Your task to perform on an android device: Add jbl charge 4 to the cart on newegg.com, then select checkout. Image 0: 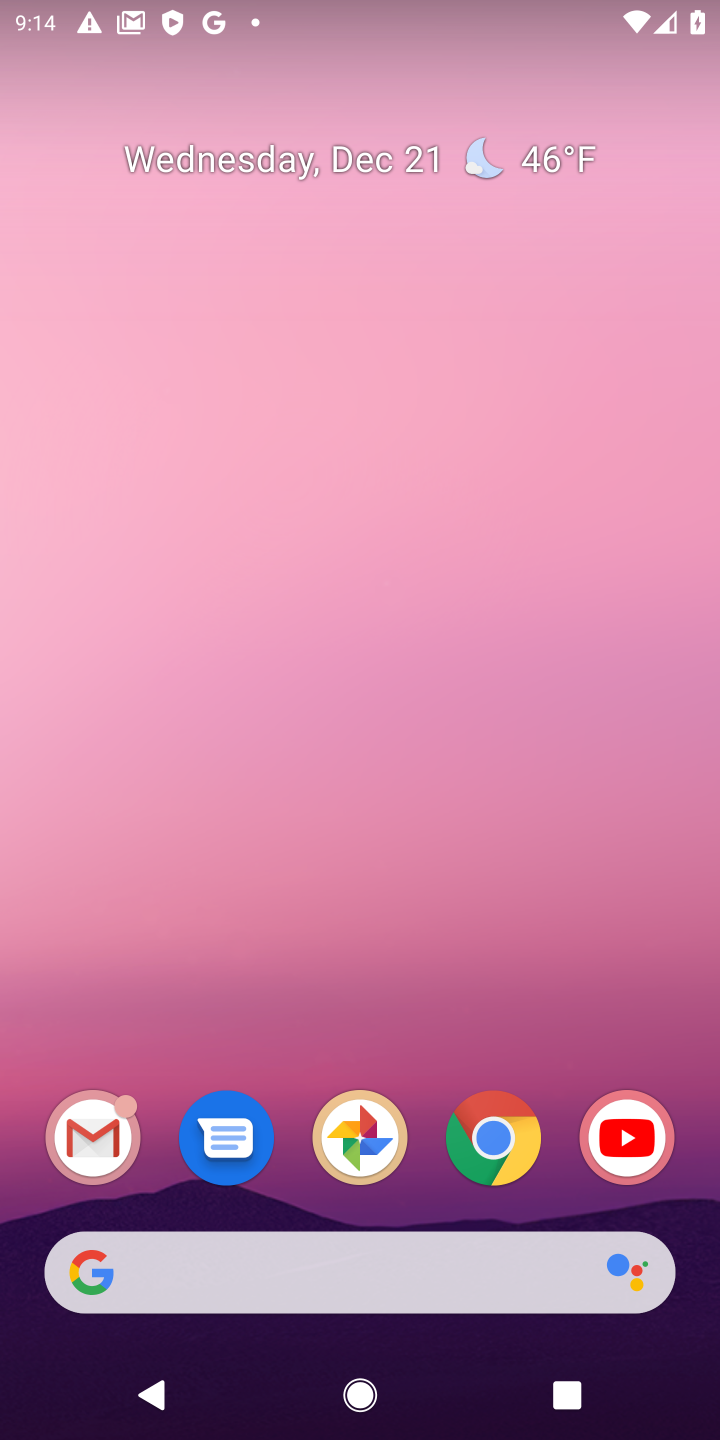
Step 0: click (483, 1142)
Your task to perform on an android device: Add jbl charge 4 to the cart on newegg.com, then select checkout. Image 1: 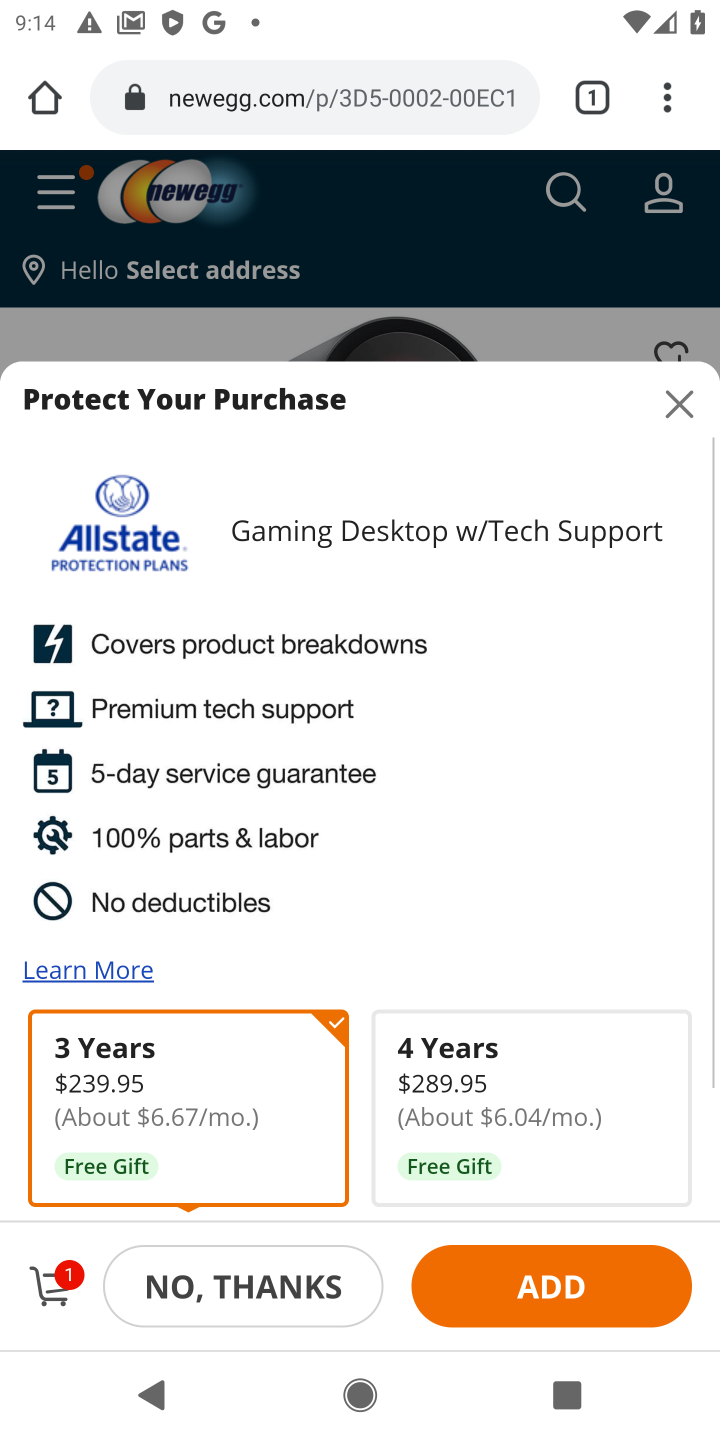
Step 1: click (688, 404)
Your task to perform on an android device: Add jbl charge 4 to the cart on newegg.com, then select checkout. Image 2: 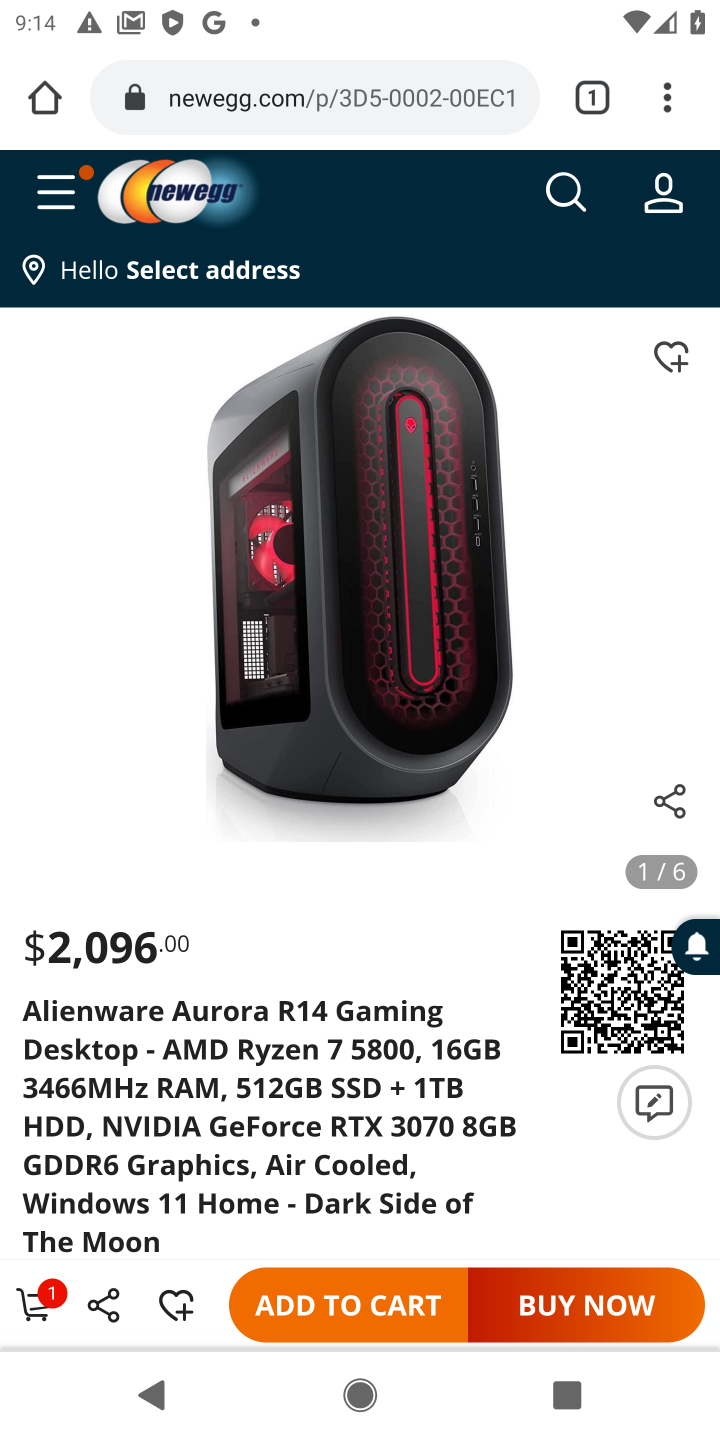
Step 2: click (575, 208)
Your task to perform on an android device: Add jbl charge 4 to the cart on newegg.com, then select checkout. Image 3: 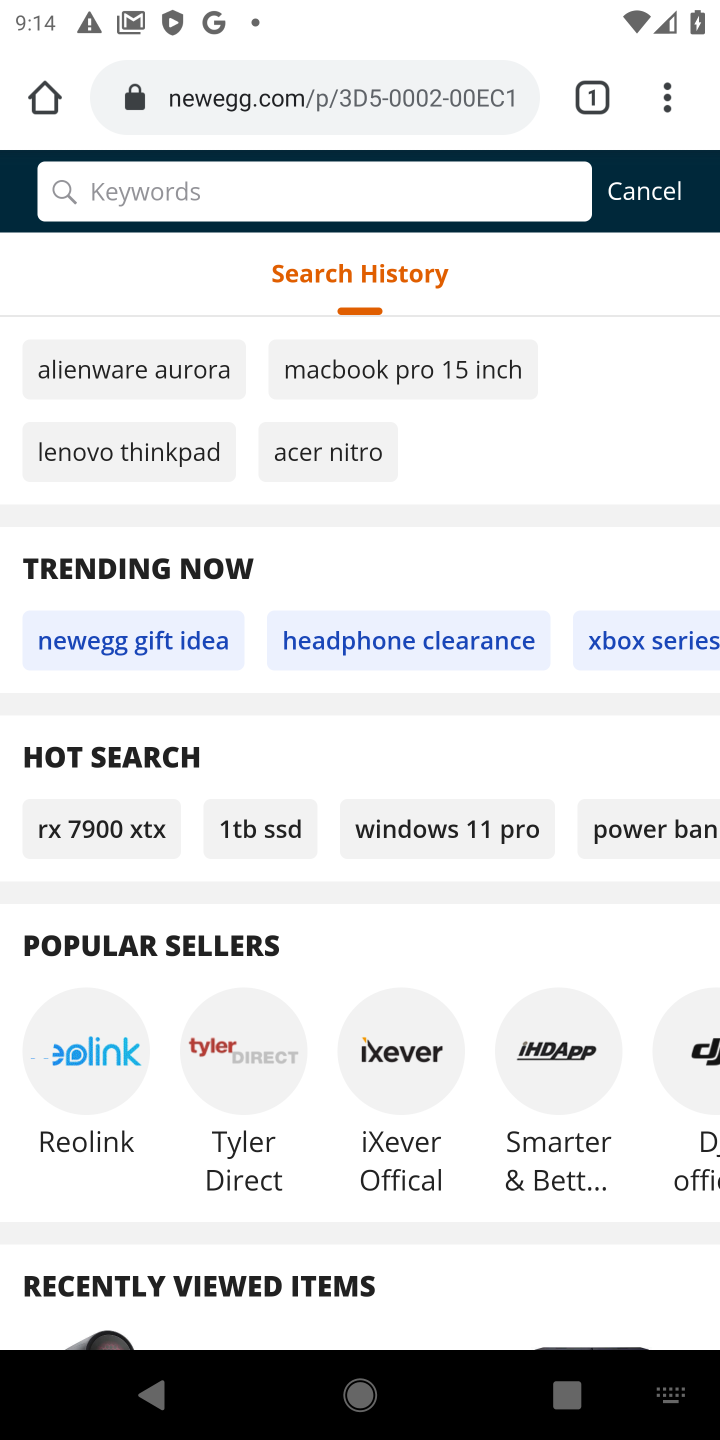
Step 3: type " jbl charge 4"
Your task to perform on an android device: Add jbl charge 4 to the cart on newegg.com, then select checkout. Image 4: 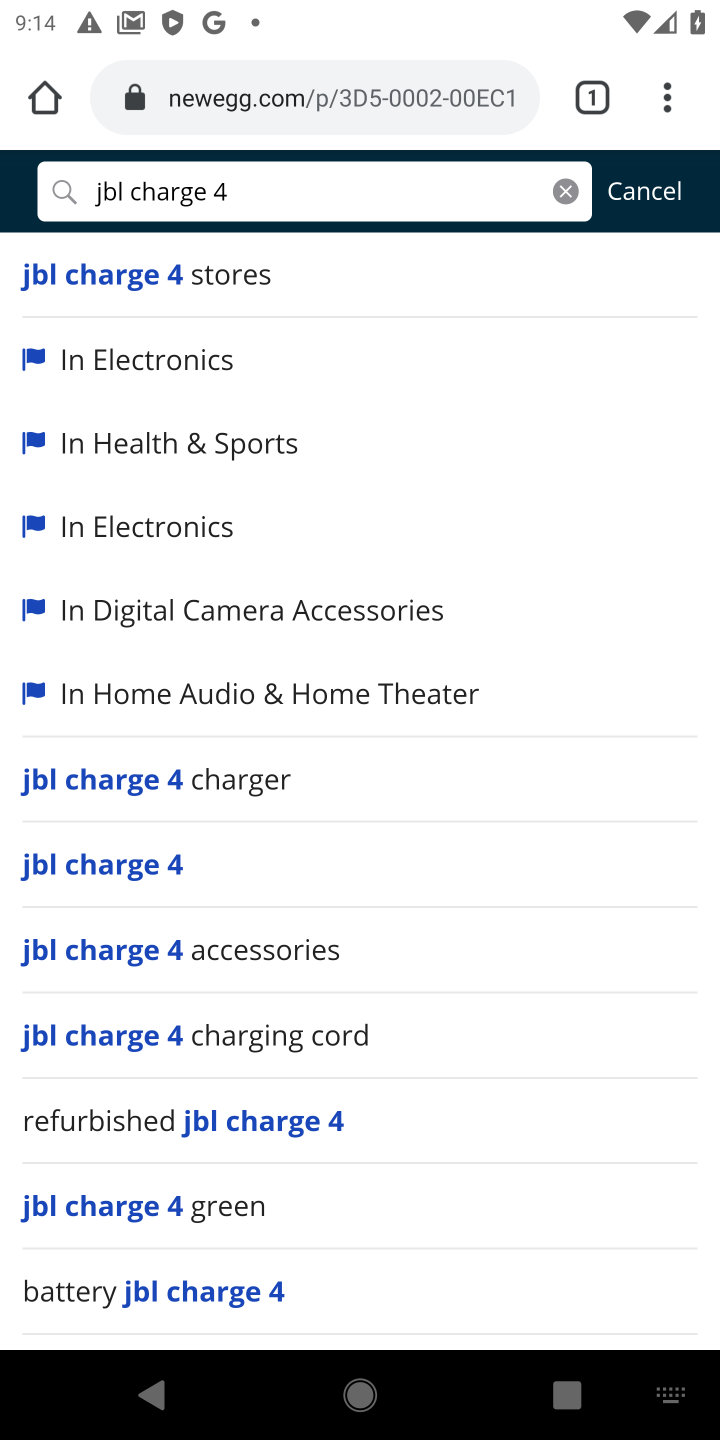
Step 4: click (95, 864)
Your task to perform on an android device: Add jbl charge 4 to the cart on newegg.com, then select checkout. Image 5: 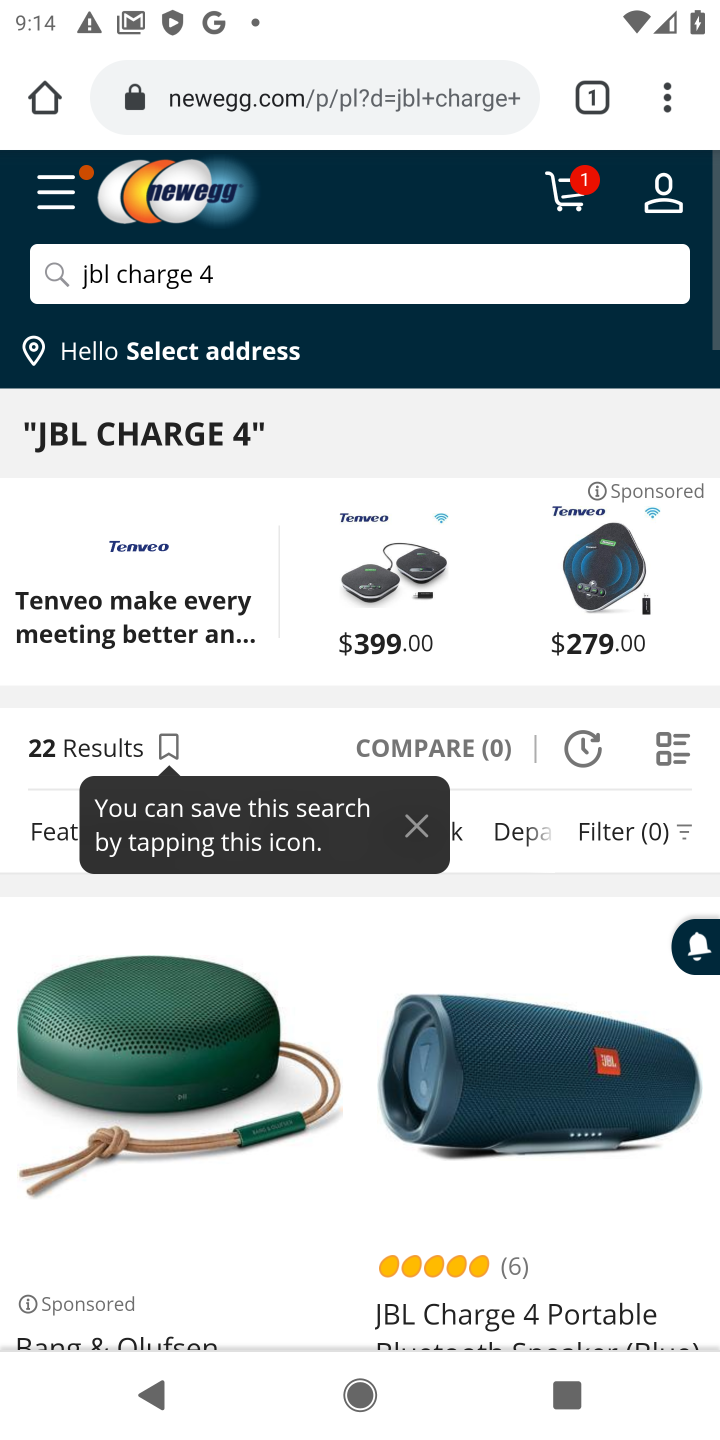
Step 5: drag from (205, 1117) to (217, 609)
Your task to perform on an android device: Add jbl charge 4 to the cart on newegg.com, then select checkout. Image 6: 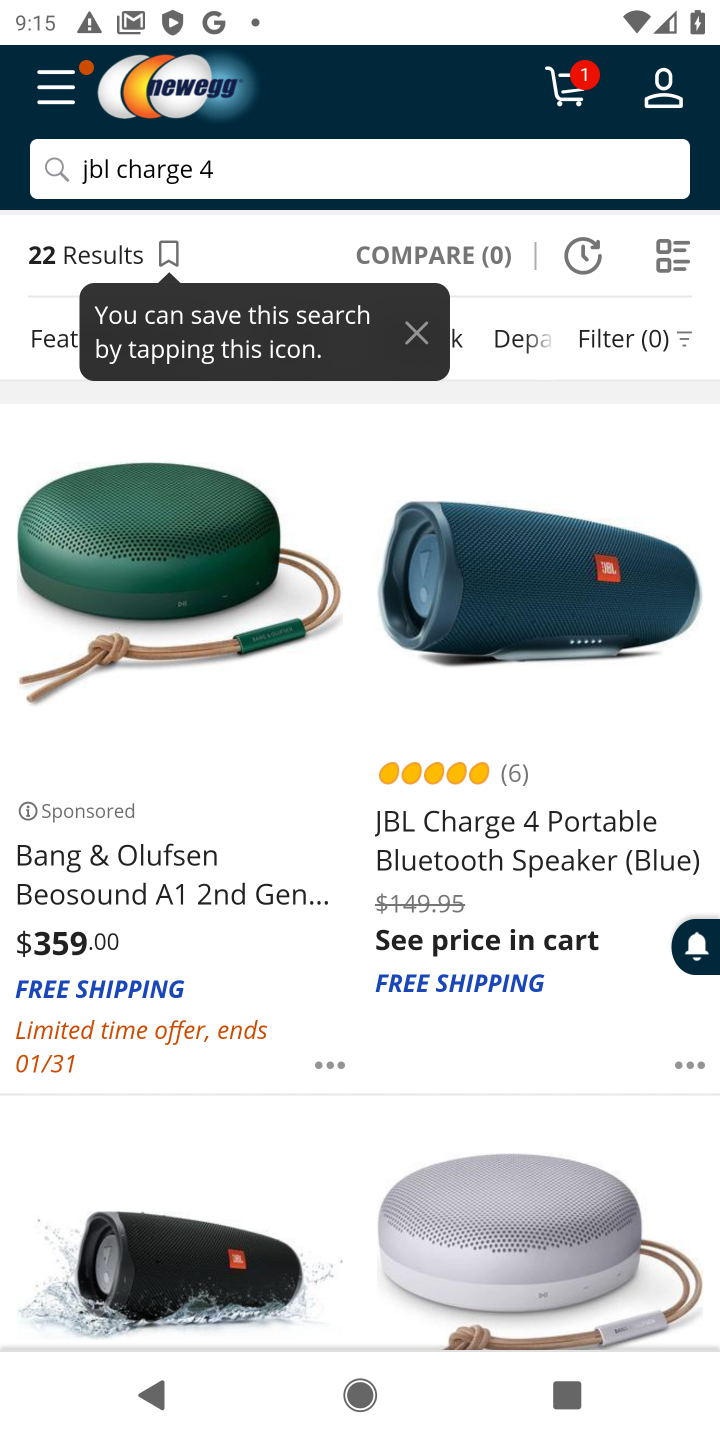
Step 6: click (506, 852)
Your task to perform on an android device: Add jbl charge 4 to the cart on newegg.com, then select checkout. Image 7: 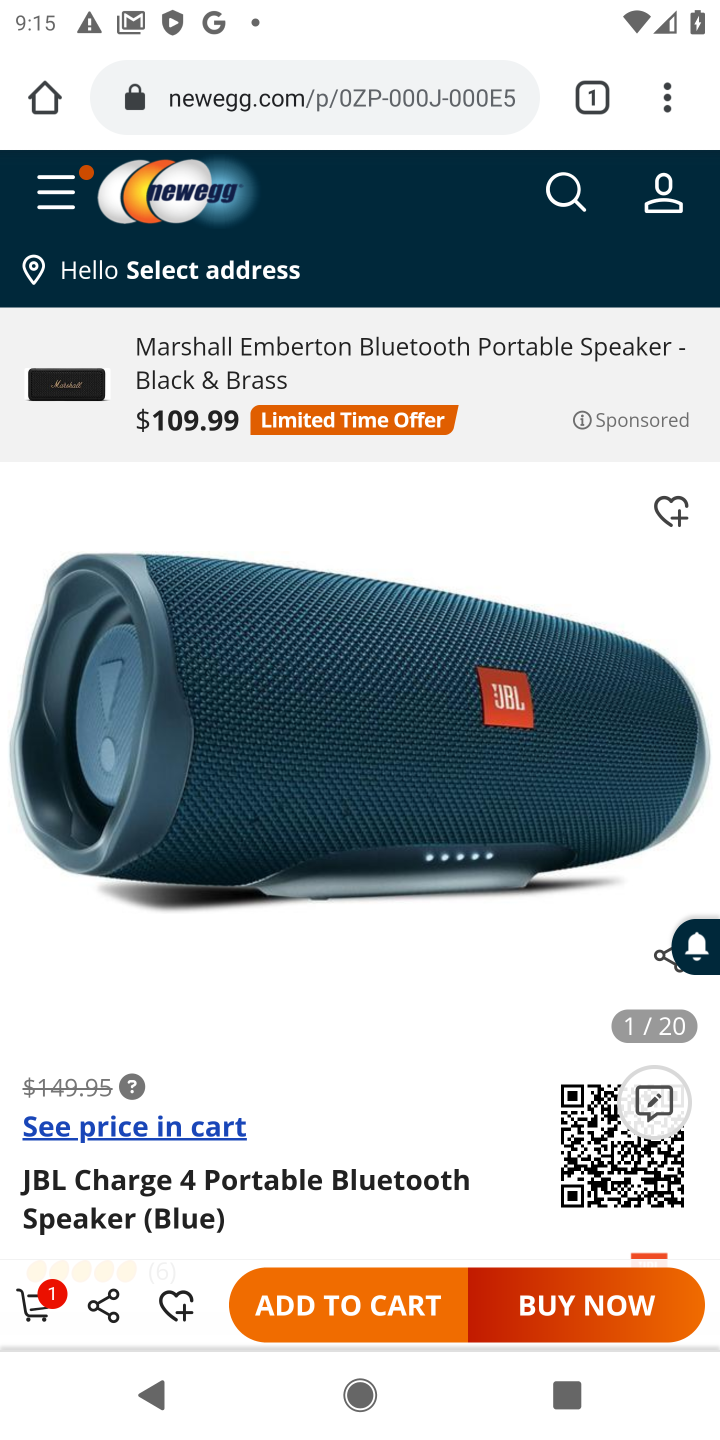
Step 7: click (368, 1301)
Your task to perform on an android device: Add jbl charge 4 to the cart on newegg.com, then select checkout. Image 8: 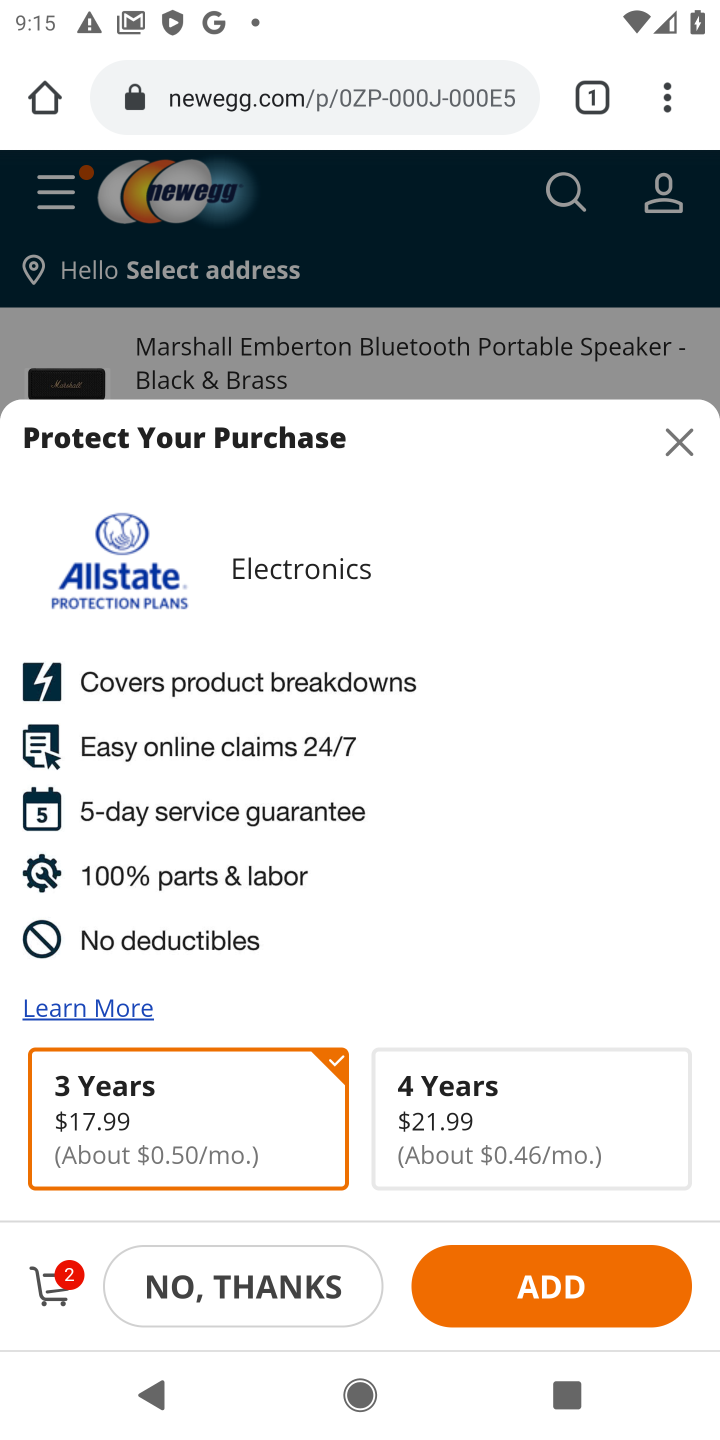
Step 8: click (53, 1298)
Your task to perform on an android device: Add jbl charge 4 to the cart on newegg.com, then select checkout. Image 9: 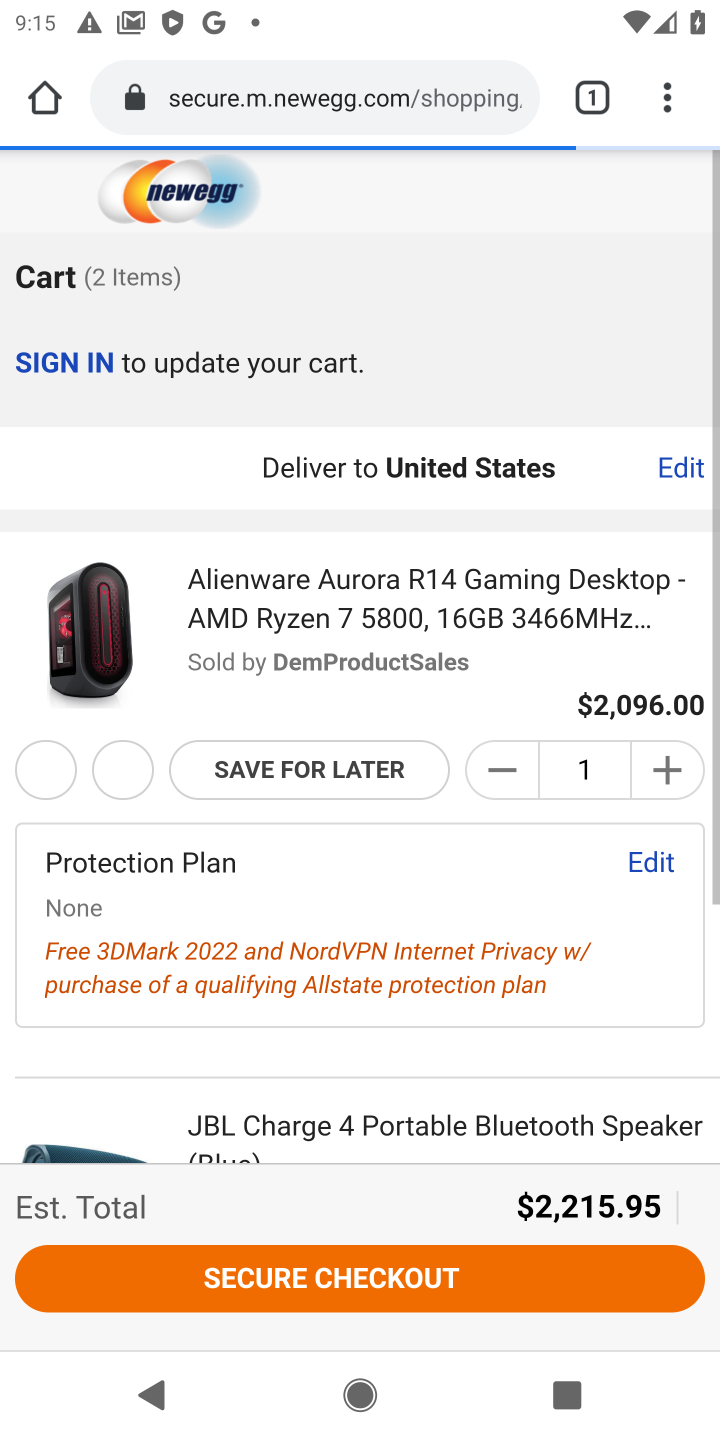
Step 9: click (271, 1313)
Your task to perform on an android device: Add jbl charge 4 to the cart on newegg.com, then select checkout. Image 10: 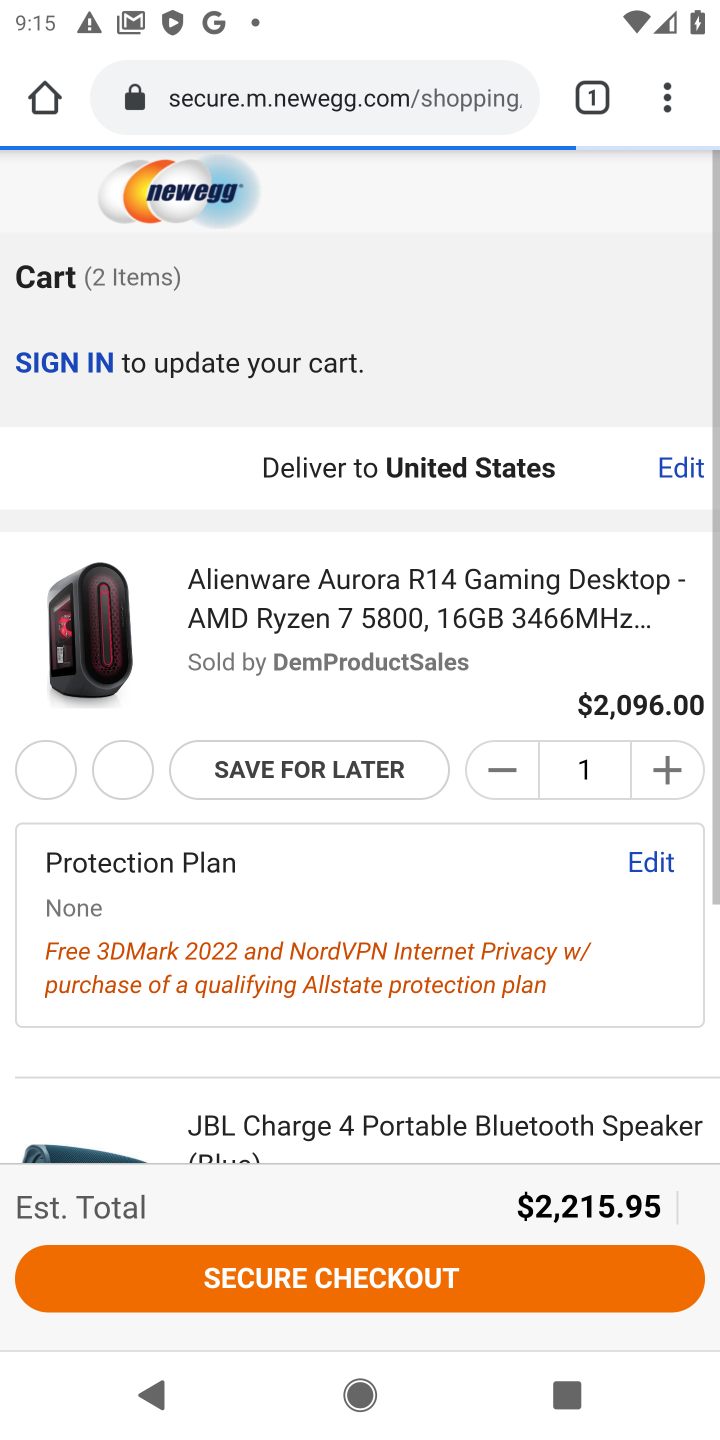
Step 10: click (296, 1271)
Your task to perform on an android device: Add jbl charge 4 to the cart on newegg.com, then select checkout. Image 11: 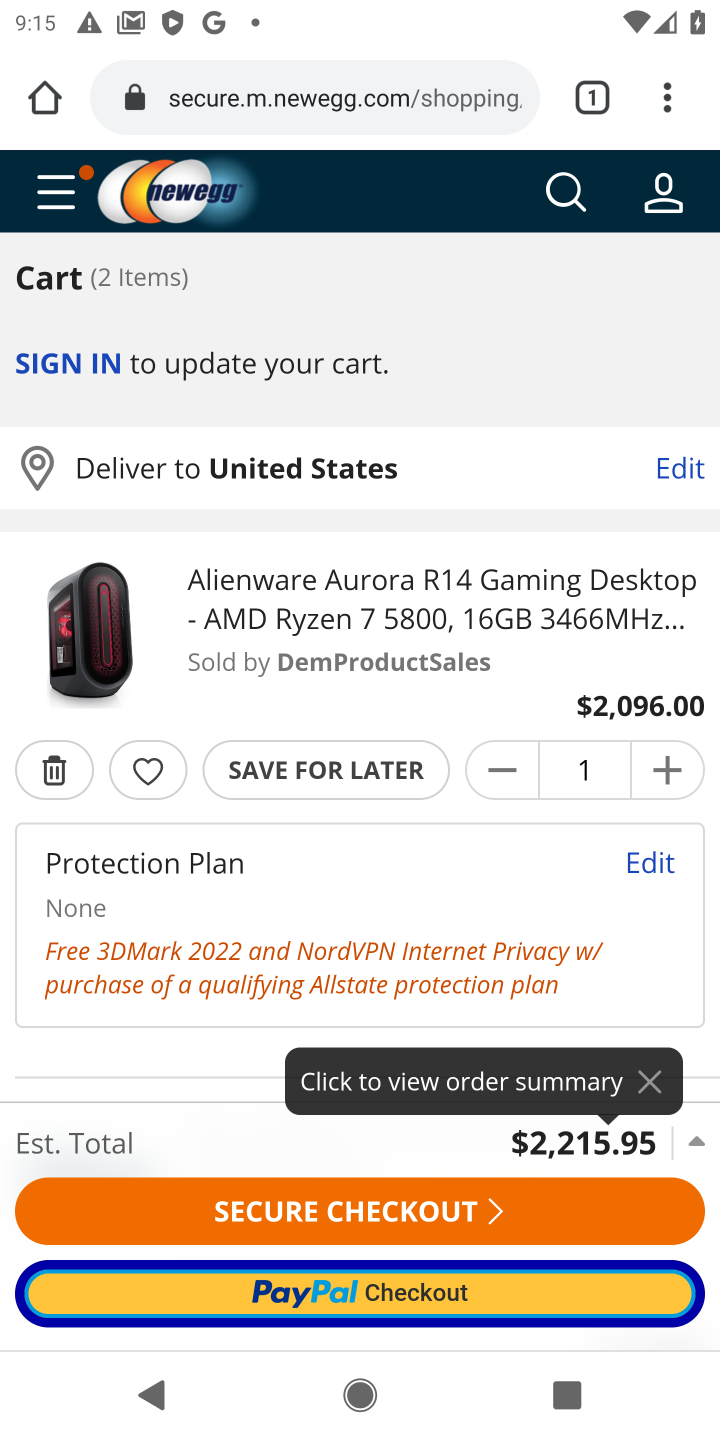
Step 11: click (348, 1205)
Your task to perform on an android device: Add jbl charge 4 to the cart on newegg.com, then select checkout. Image 12: 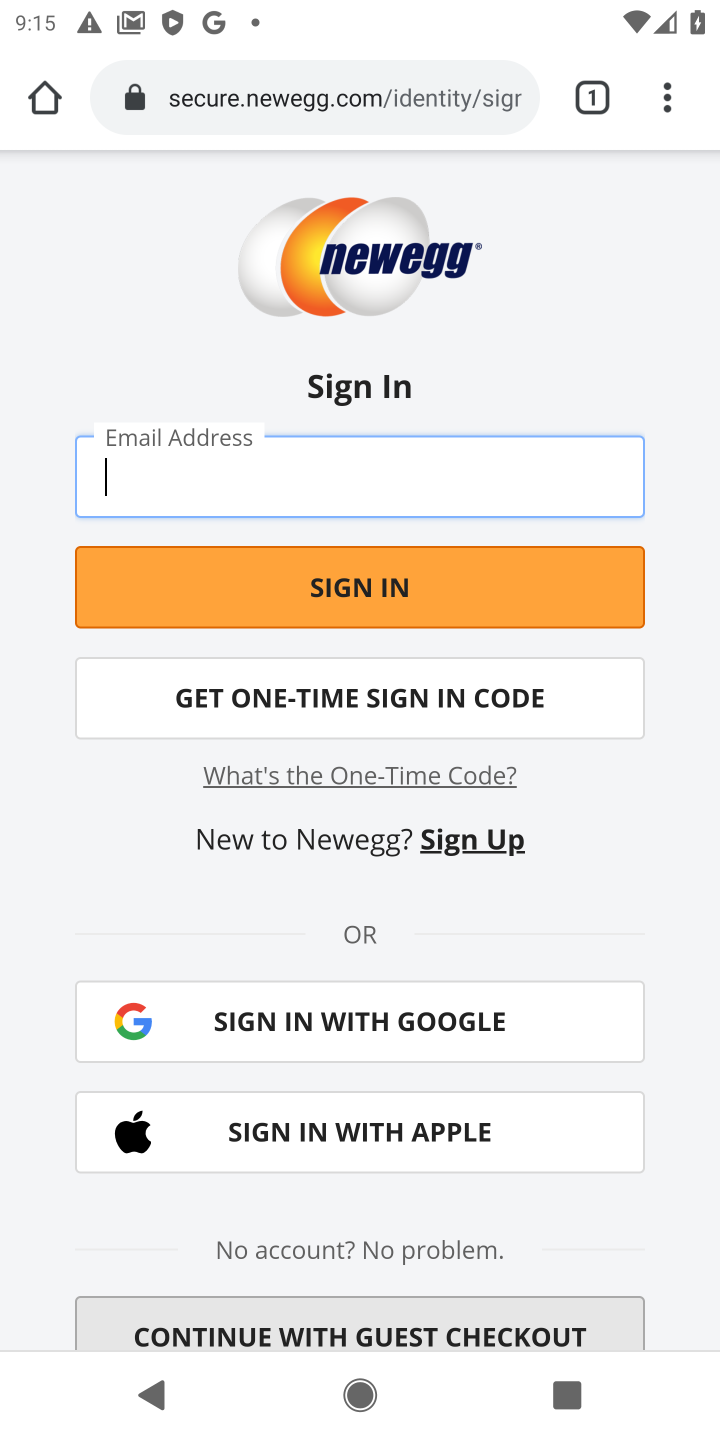
Step 12: task complete